Your task to perform on an android device: delete browsing data in the chrome app Image 0: 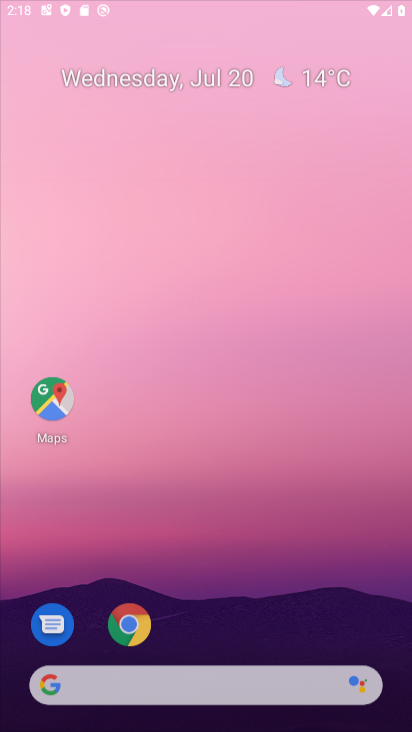
Step 0: press back button
Your task to perform on an android device: delete browsing data in the chrome app Image 1: 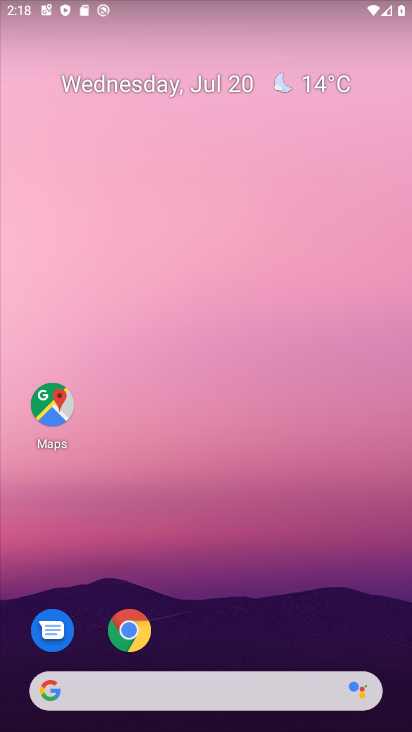
Step 1: click (72, 685)
Your task to perform on an android device: delete browsing data in the chrome app Image 2: 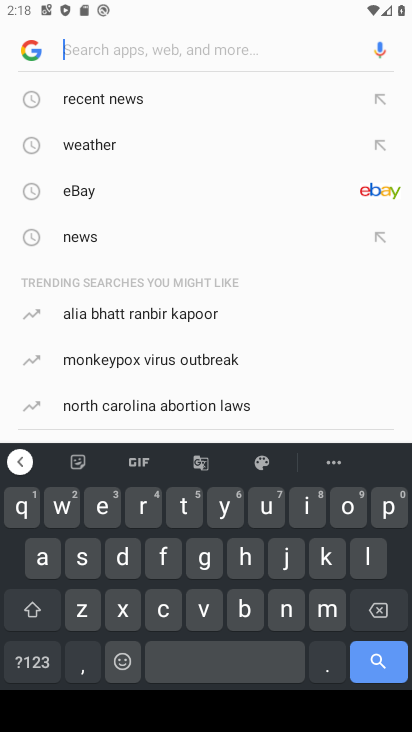
Step 2: click (34, 48)
Your task to perform on an android device: delete browsing data in the chrome app Image 3: 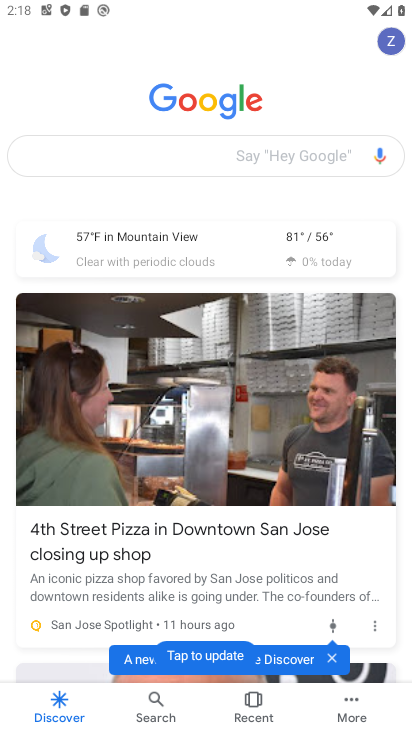
Step 3: press home button
Your task to perform on an android device: delete browsing data in the chrome app Image 4: 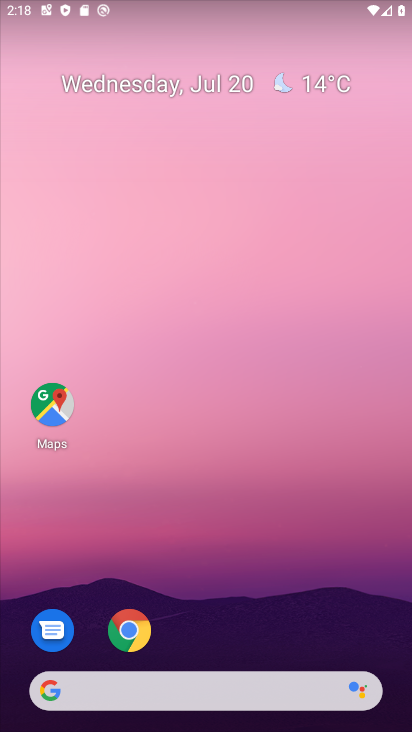
Step 4: click (118, 622)
Your task to perform on an android device: delete browsing data in the chrome app Image 5: 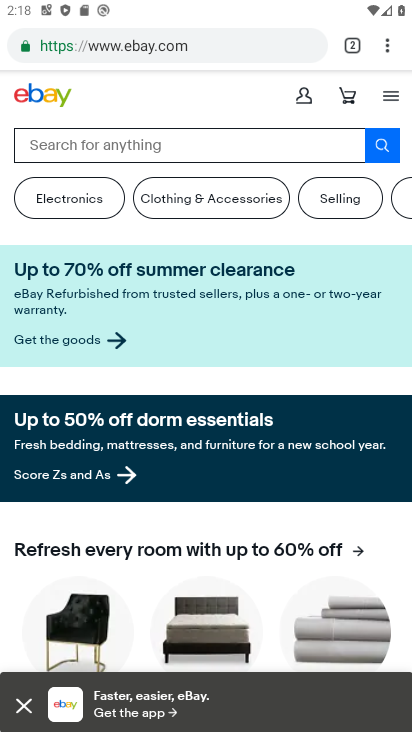
Step 5: click (143, 52)
Your task to perform on an android device: delete browsing data in the chrome app Image 6: 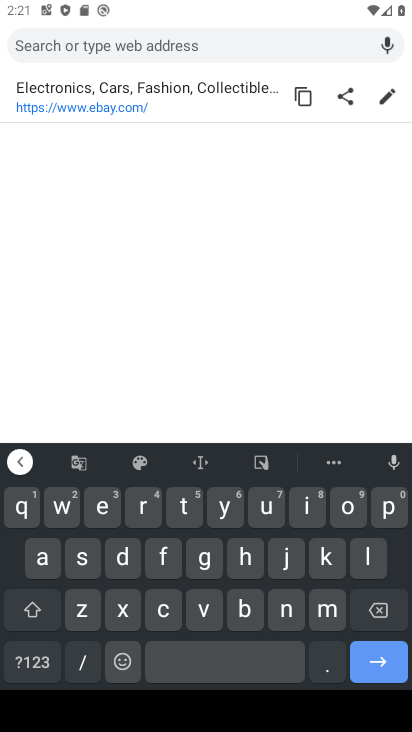
Step 6: task complete